Your task to perform on an android device: Go to battery settings Image 0: 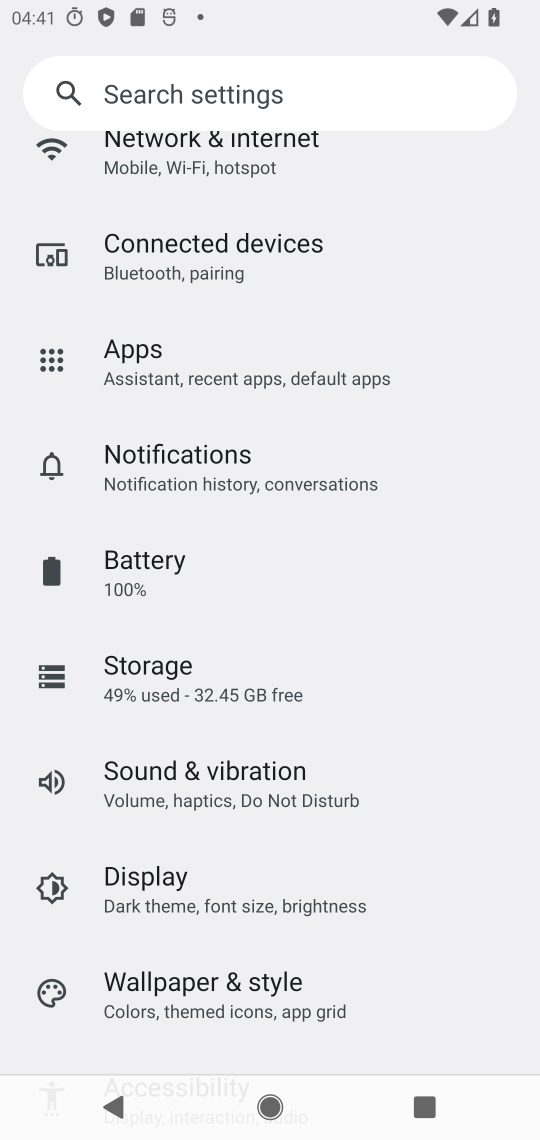
Step 0: press home button
Your task to perform on an android device: Go to battery settings Image 1: 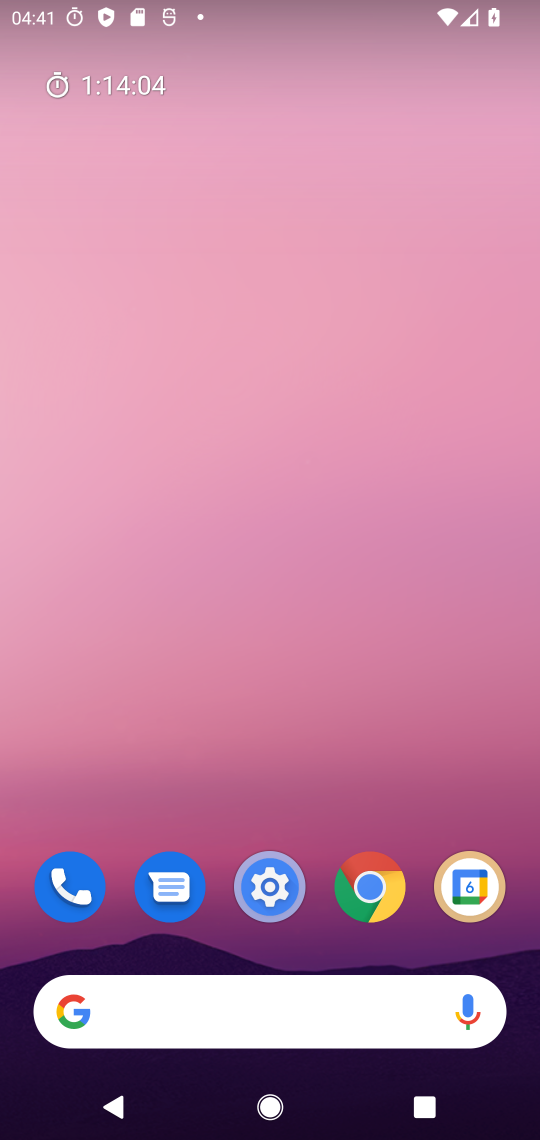
Step 1: drag from (317, 793) to (396, 288)
Your task to perform on an android device: Go to battery settings Image 2: 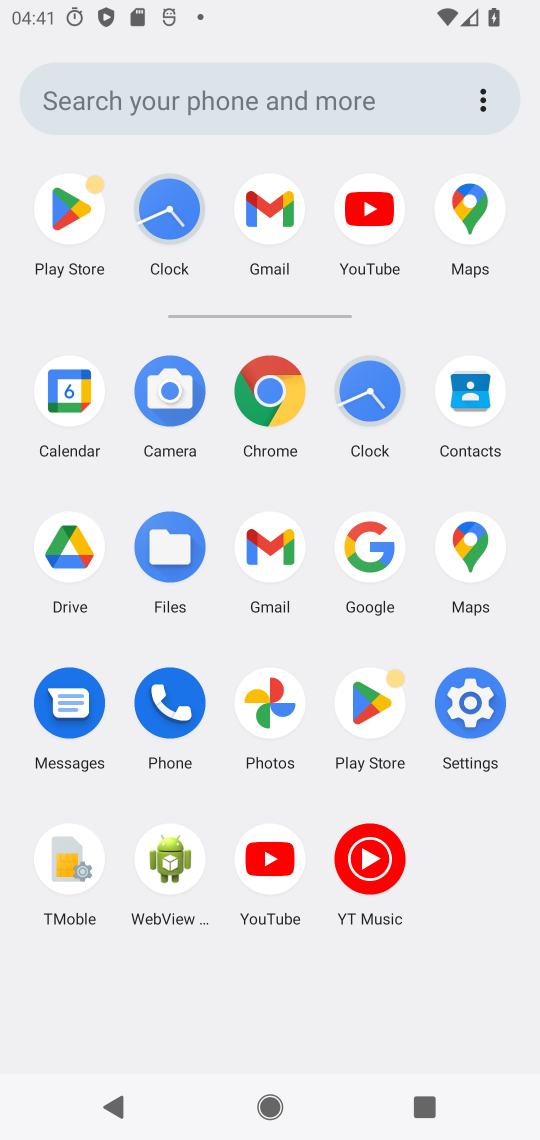
Step 2: click (474, 709)
Your task to perform on an android device: Go to battery settings Image 3: 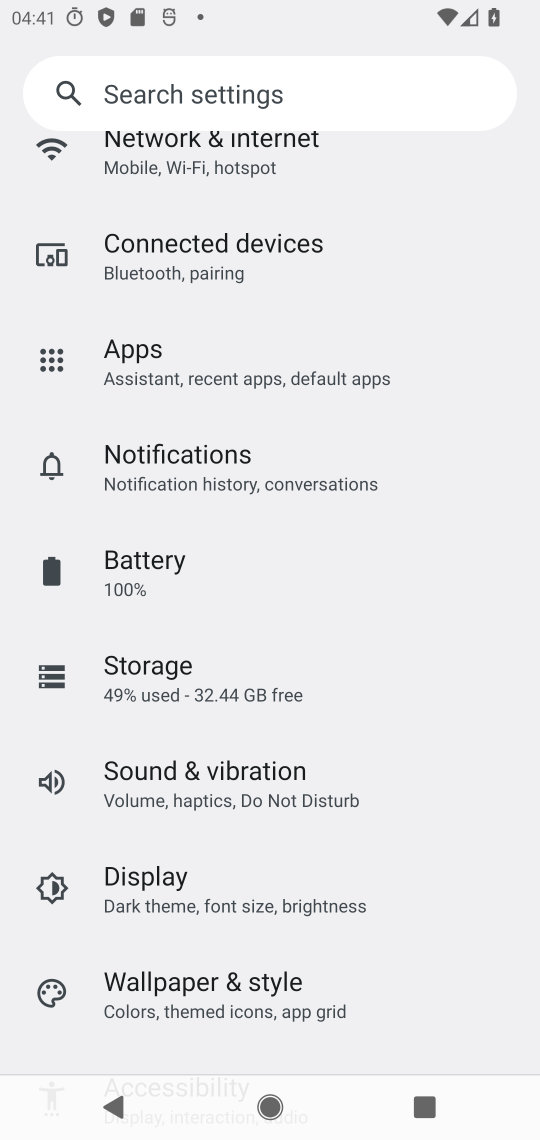
Step 3: drag from (463, 387) to (468, 556)
Your task to perform on an android device: Go to battery settings Image 4: 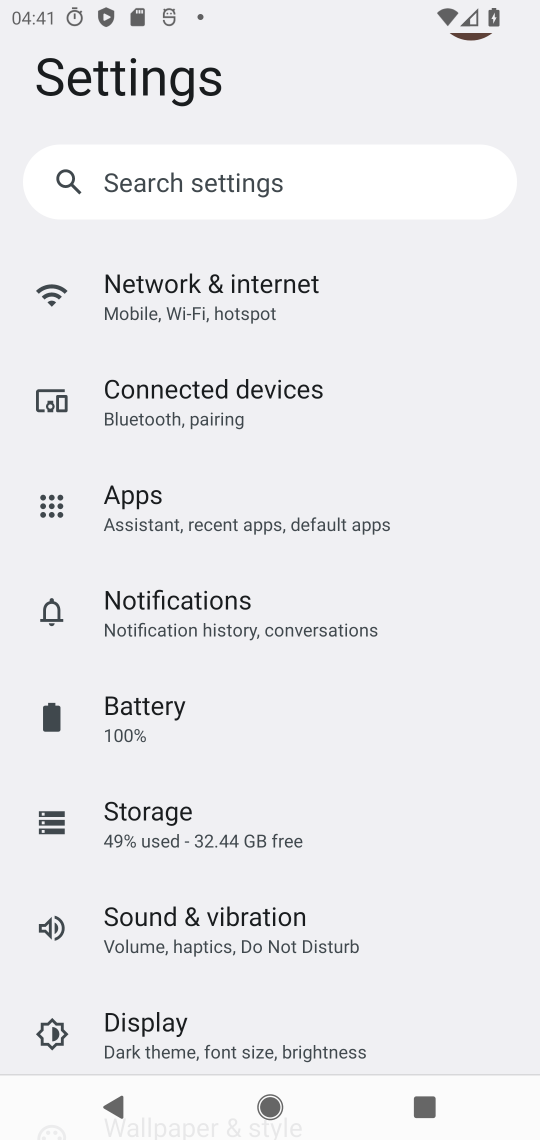
Step 4: drag from (468, 359) to (462, 570)
Your task to perform on an android device: Go to battery settings Image 5: 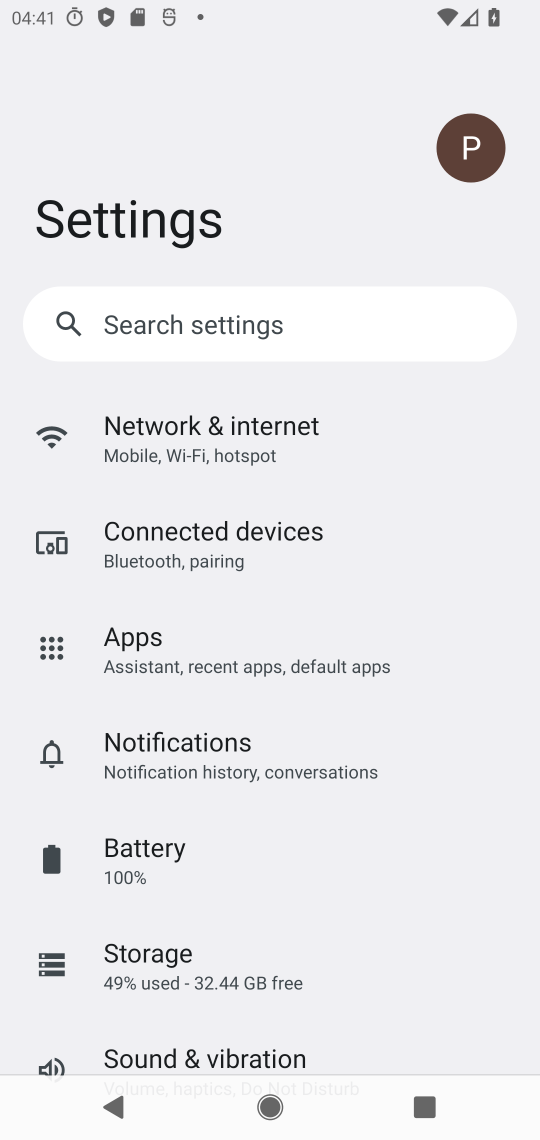
Step 5: drag from (476, 419) to (463, 609)
Your task to perform on an android device: Go to battery settings Image 6: 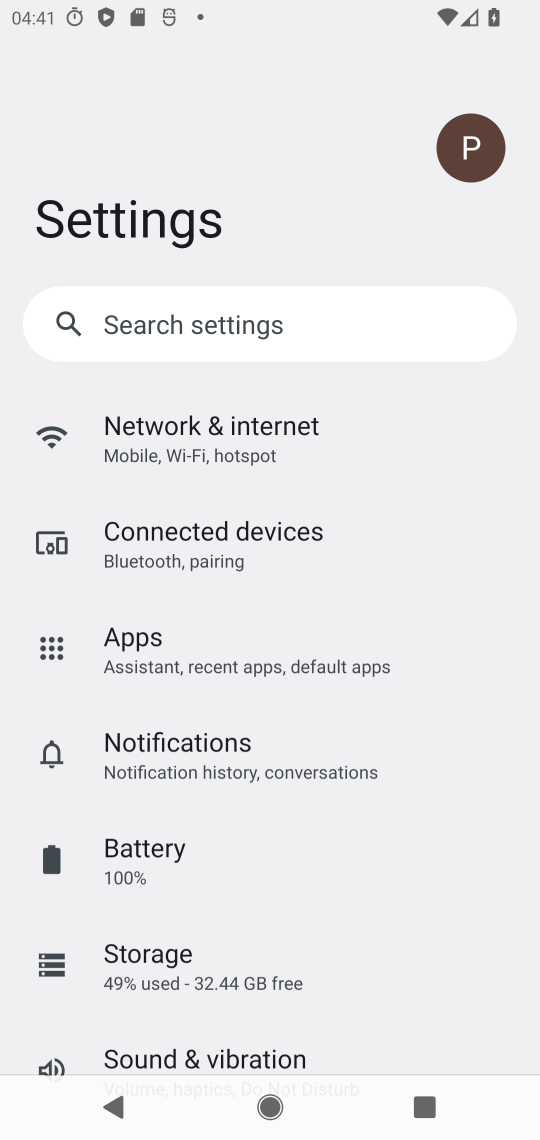
Step 6: drag from (456, 351) to (456, 648)
Your task to perform on an android device: Go to battery settings Image 7: 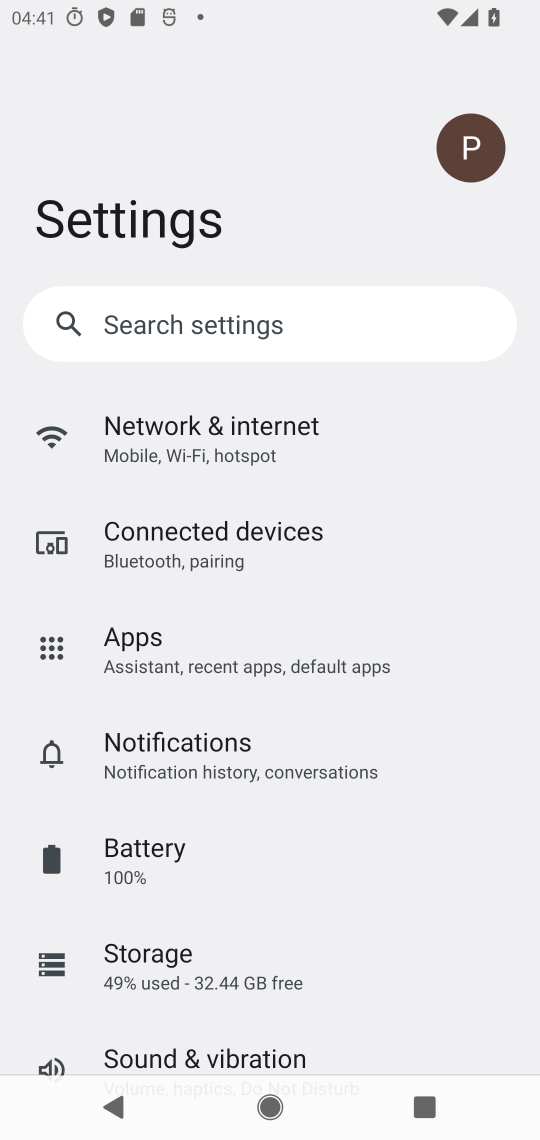
Step 7: drag from (436, 730) to (435, 550)
Your task to perform on an android device: Go to battery settings Image 8: 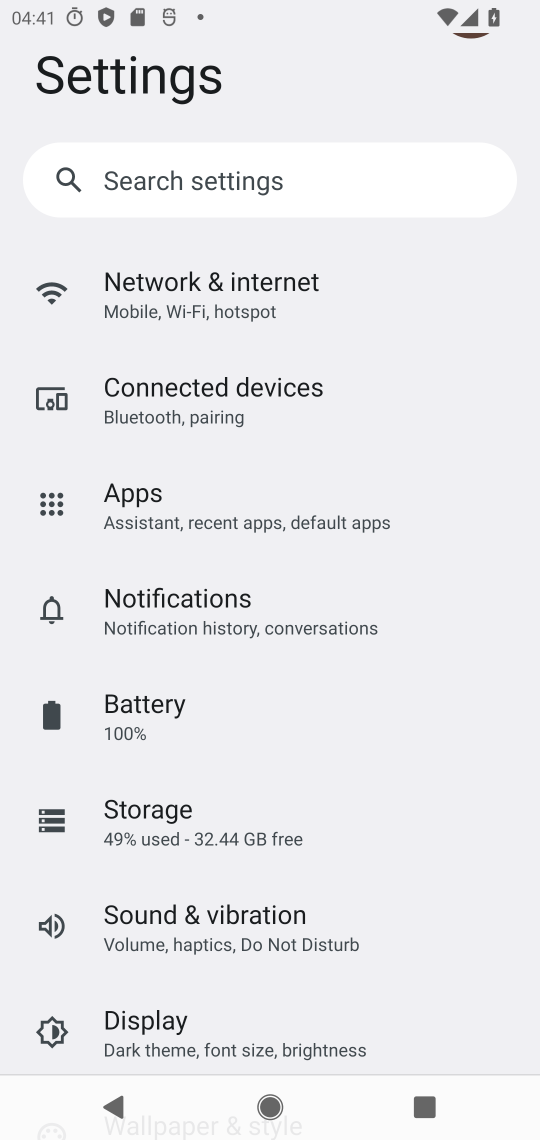
Step 8: click (241, 727)
Your task to perform on an android device: Go to battery settings Image 9: 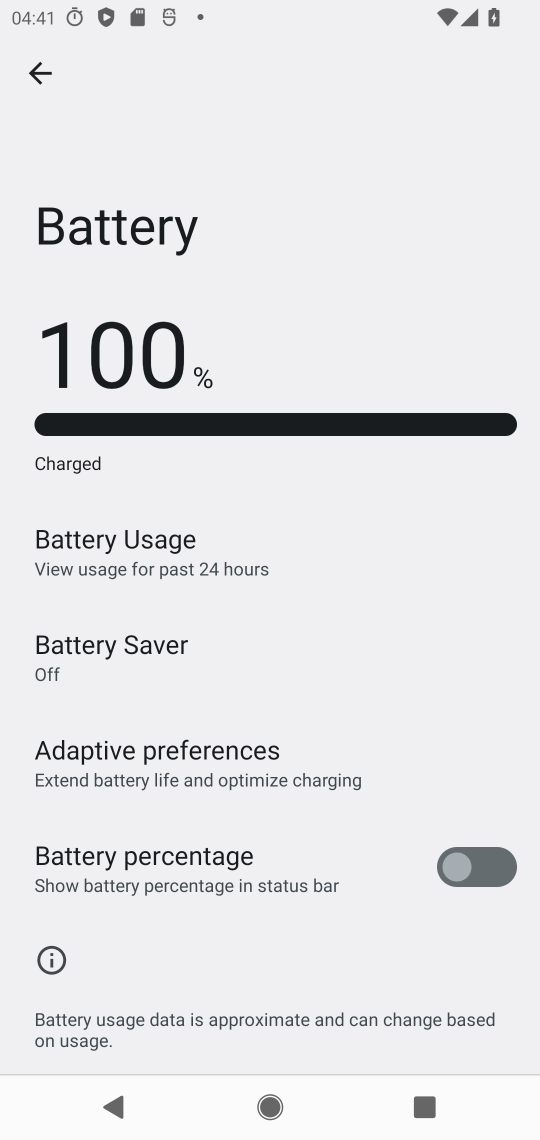
Step 9: task complete